Your task to perform on an android device: open app "Pandora - Music & Podcasts" (install if not already installed) and enter user name: "creator@yahoo.com" and password: "valuable" Image 0: 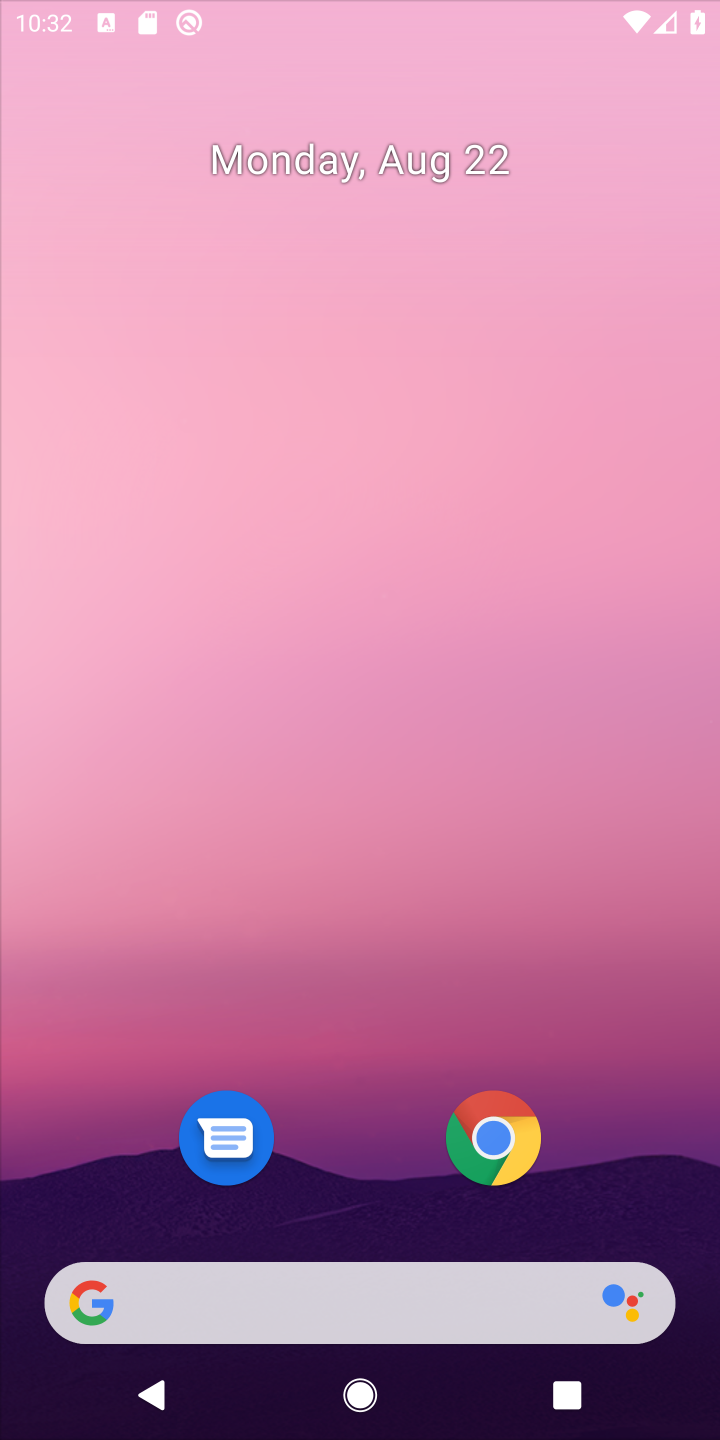
Step 0: press home button
Your task to perform on an android device: open app "Pandora - Music & Podcasts" (install if not already installed) and enter user name: "creator@yahoo.com" and password: "valuable" Image 1: 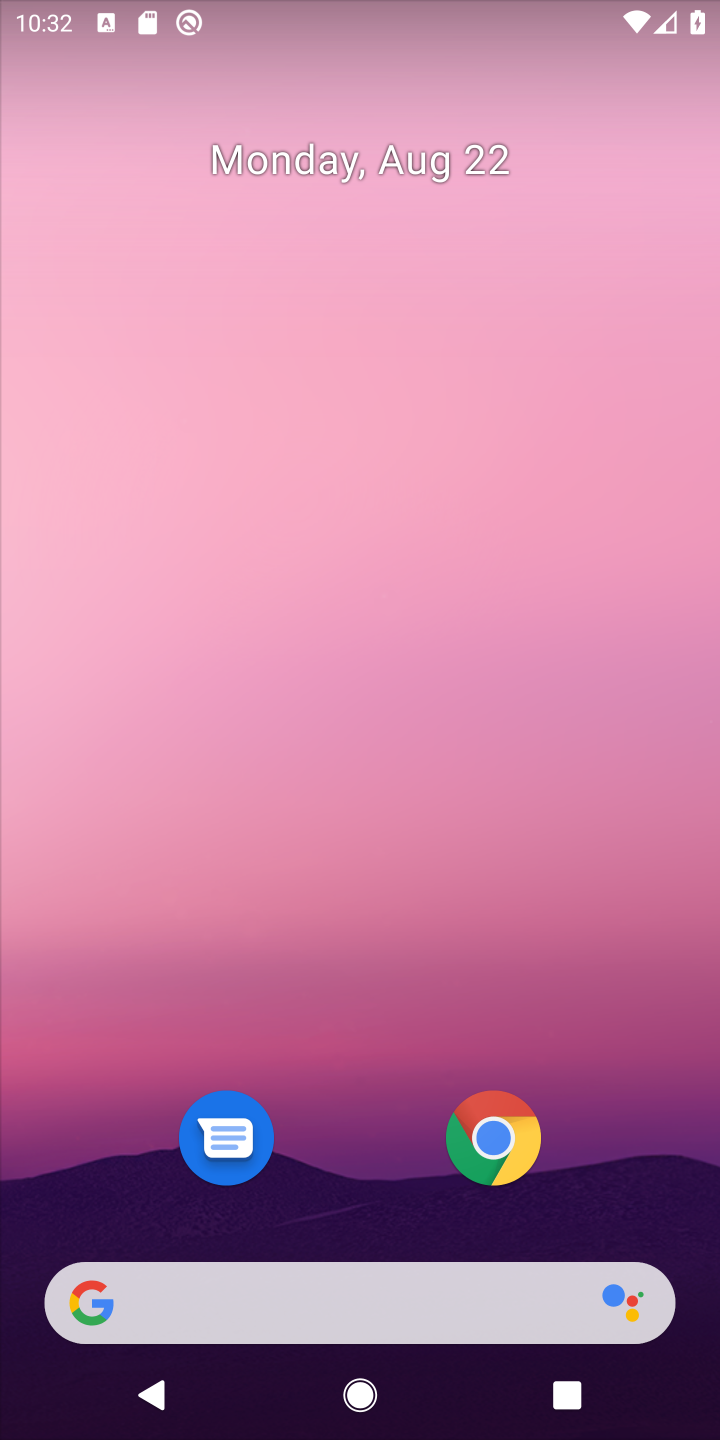
Step 1: drag from (374, 1216) to (361, 137)
Your task to perform on an android device: open app "Pandora - Music & Podcasts" (install if not already installed) and enter user name: "creator@yahoo.com" and password: "valuable" Image 2: 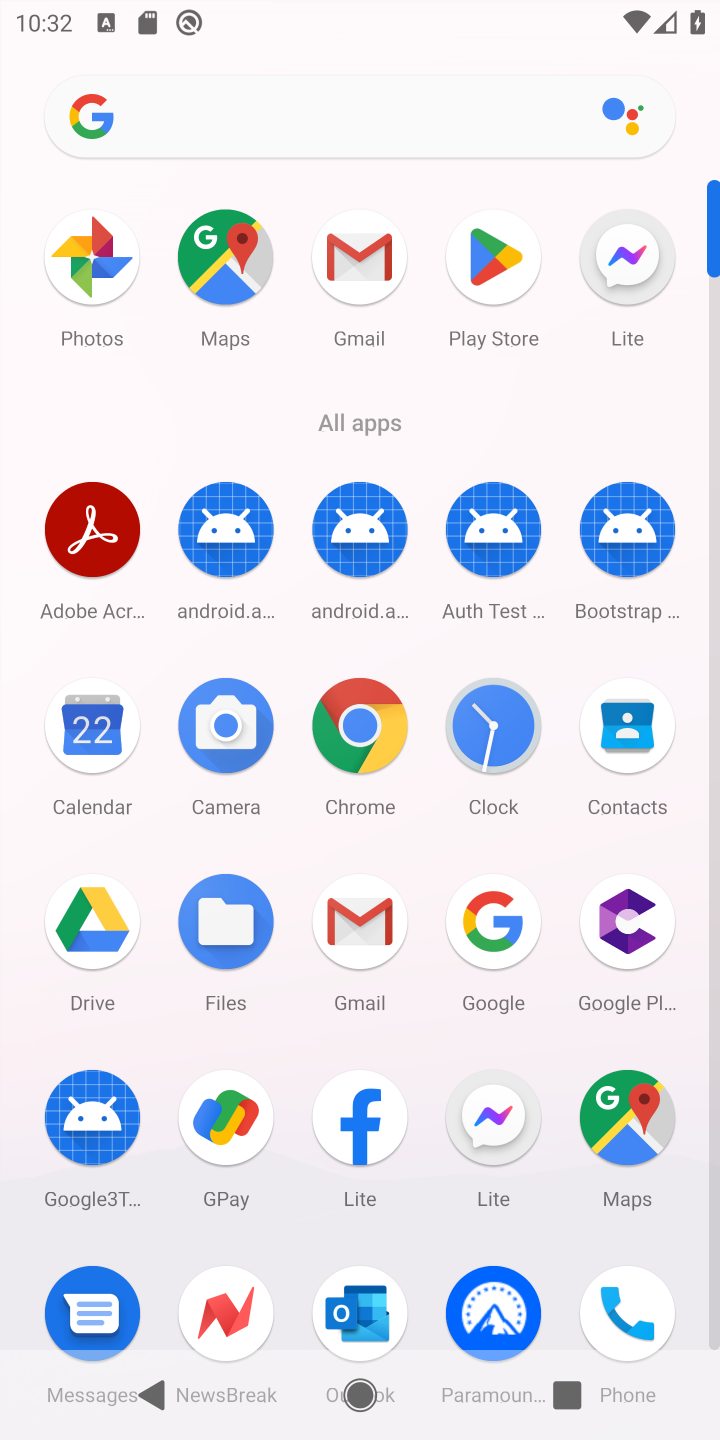
Step 2: click (494, 246)
Your task to perform on an android device: open app "Pandora - Music & Podcasts" (install if not already installed) and enter user name: "creator@yahoo.com" and password: "valuable" Image 3: 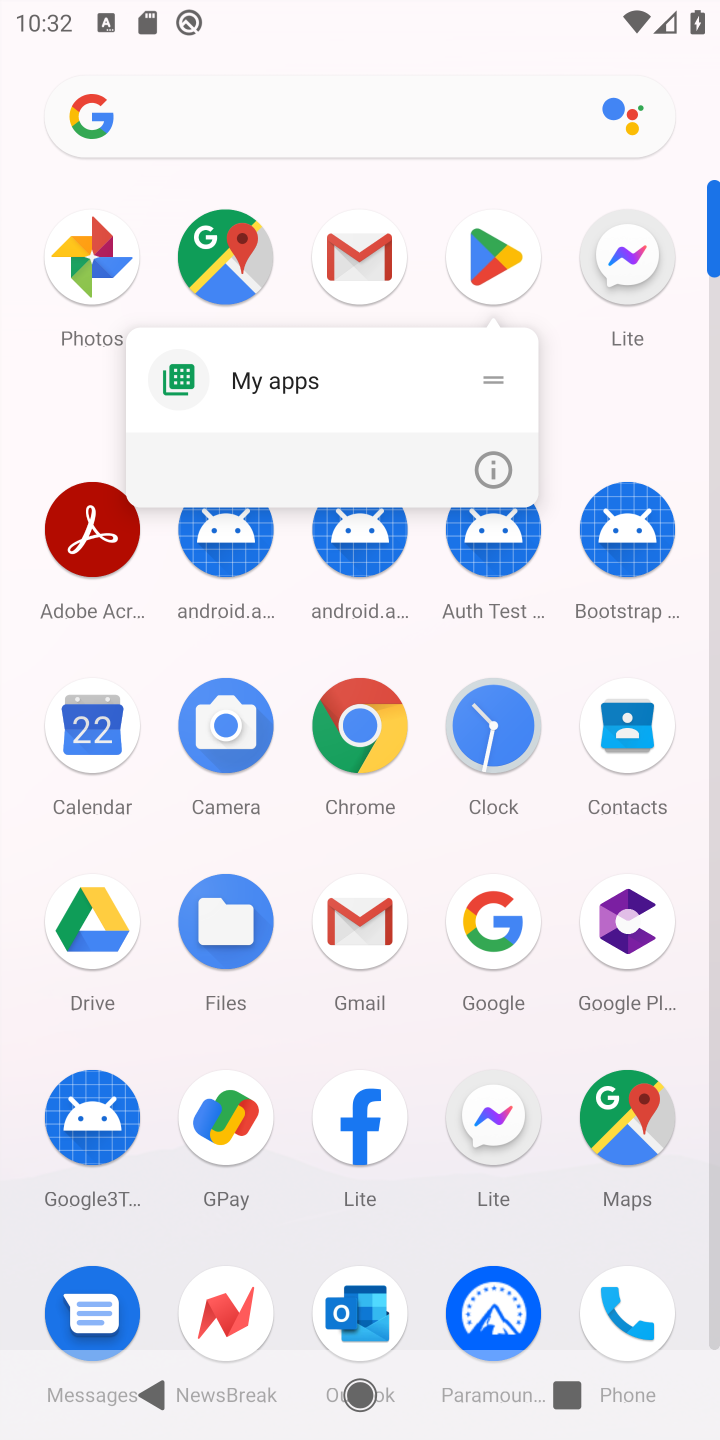
Step 3: click (488, 248)
Your task to perform on an android device: open app "Pandora - Music & Podcasts" (install if not already installed) and enter user name: "creator@yahoo.com" and password: "valuable" Image 4: 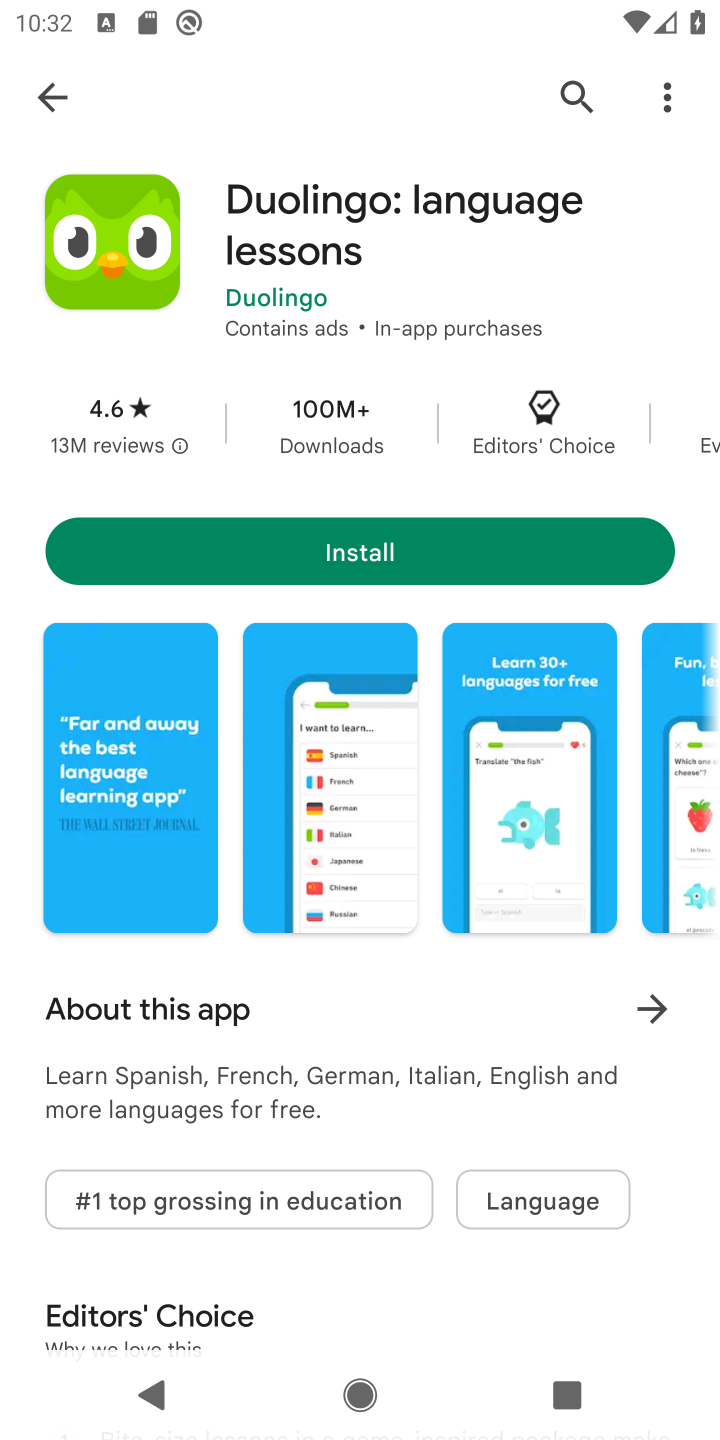
Step 4: click (566, 97)
Your task to perform on an android device: open app "Pandora - Music & Podcasts" (install if not already installed) and enter user name: "creator@yahoo.com" and password: "valuable" Image 5: 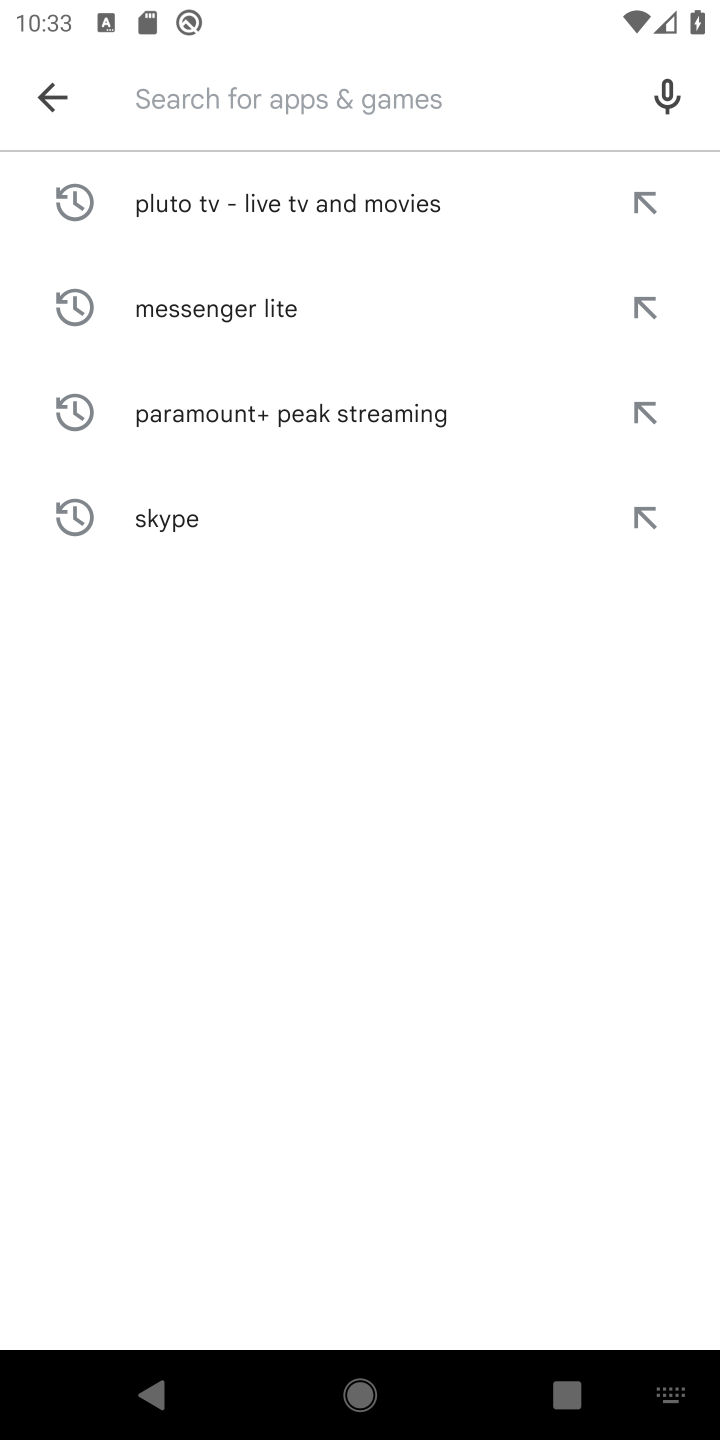
Step 5: type "Pandora - Music & Podcasts"
Your task to perform on an android device: open app "Pandora - Music & Podcasts" (install if not already installed) and enter user name: "creator@yahoo.com" and password: "valuable" Image 6: 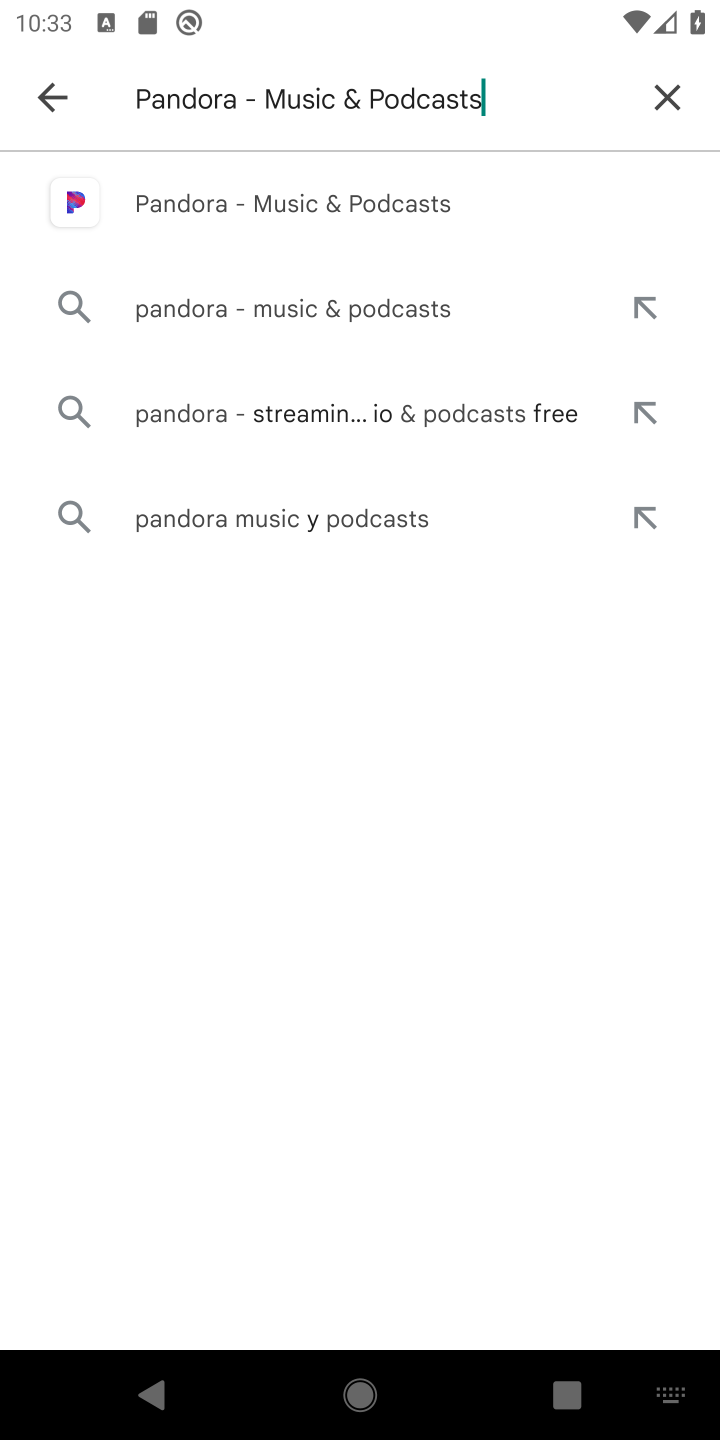
Step 6: click (277, 204)
Your task to perform on an android device: open app "Pandora - Music & Podcasts" (install if not already installed) and enter user name: "creator@yahoo.com" and password: "valuable" Image 7: 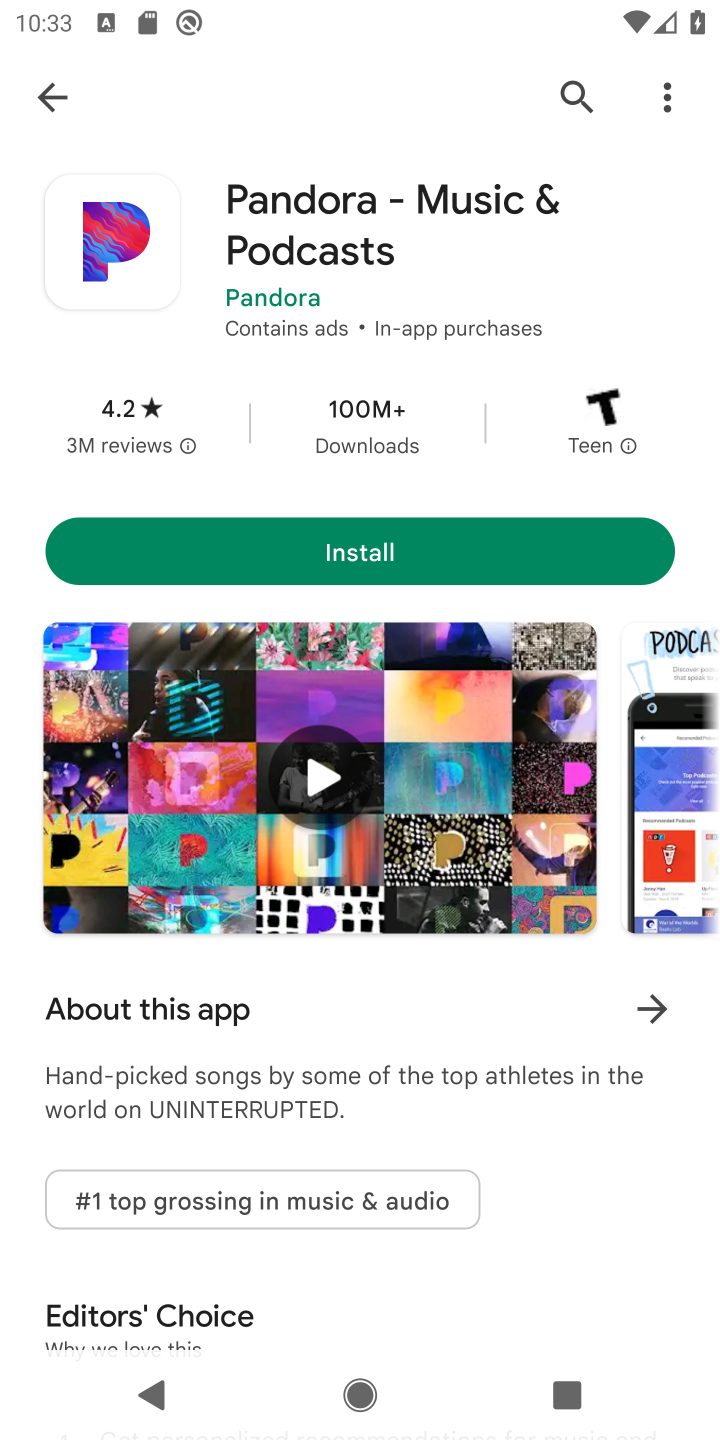
Step 7: click (364, 554)
Your task to perform on an android device: open app "Pandora - Music & Podcasts" (install if not already installed) and enter user name: "creator@yahoo.com" and password: "valuable" Image 8: 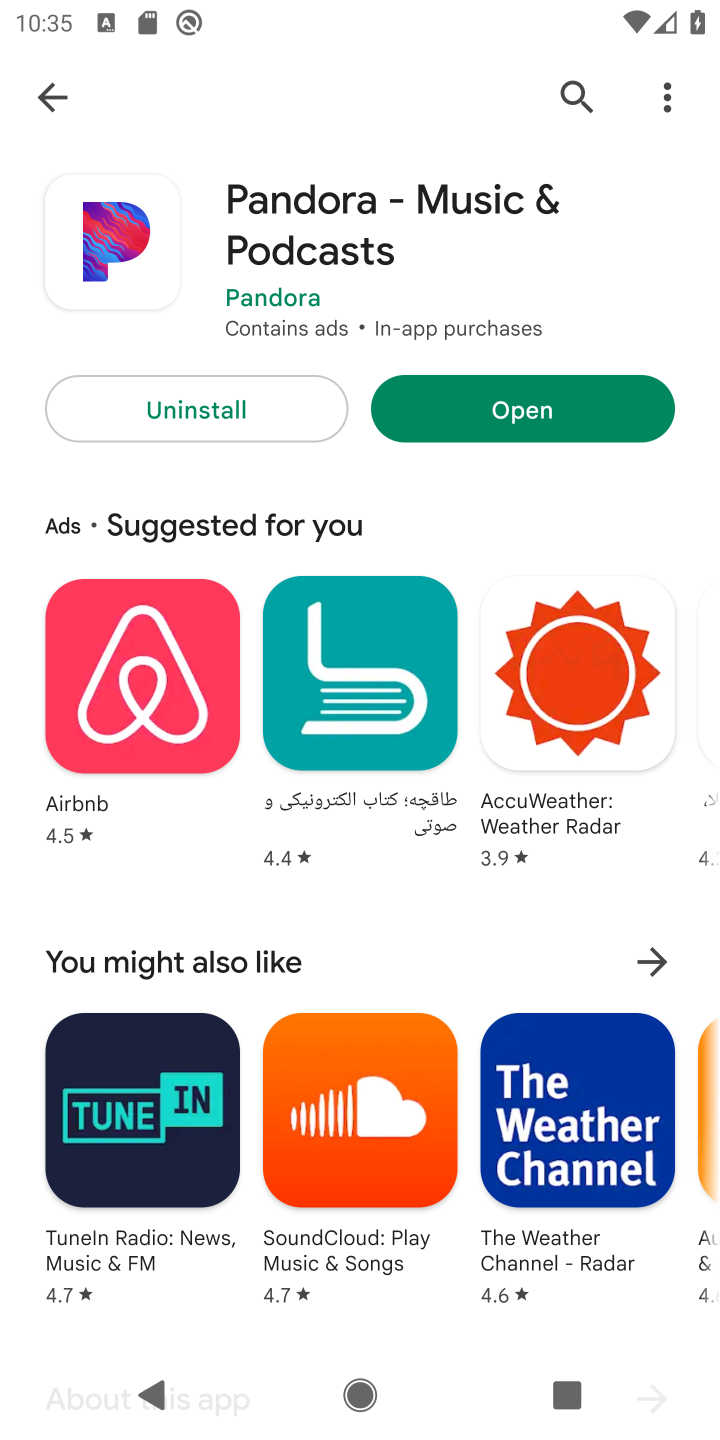
Step 8: click (548, 411)
Your task to perform on an android device: open app "Pandora - Music & Podcasts" (install if not already installed) and enter user name: "creator@yahoo.com" and password: "valuable" Image 9: 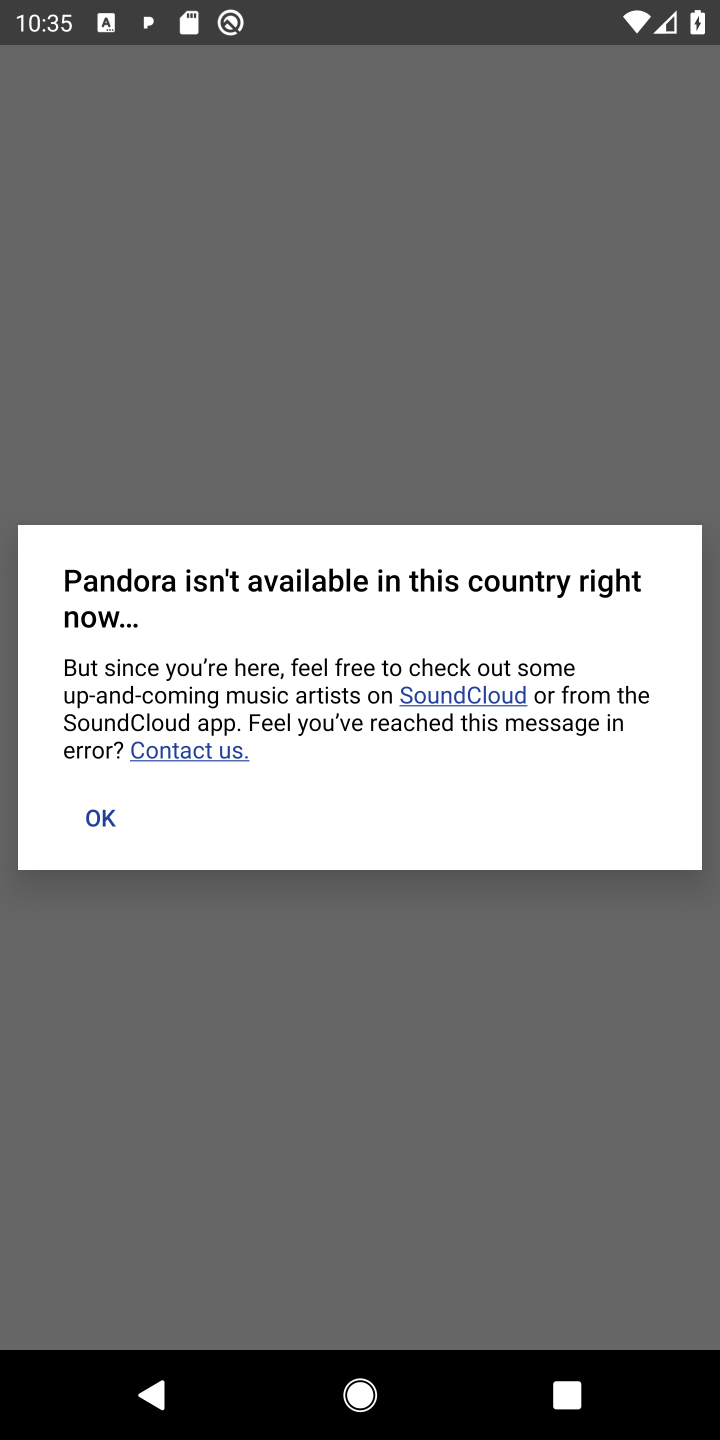
Step 9: click (104, 828)
Your task to perform on an android device: open app "Pandora - Music & Podcasts" (install if not already installed) and enter user name: "creator@yahoo.com" and password: "valuable" Image 10: 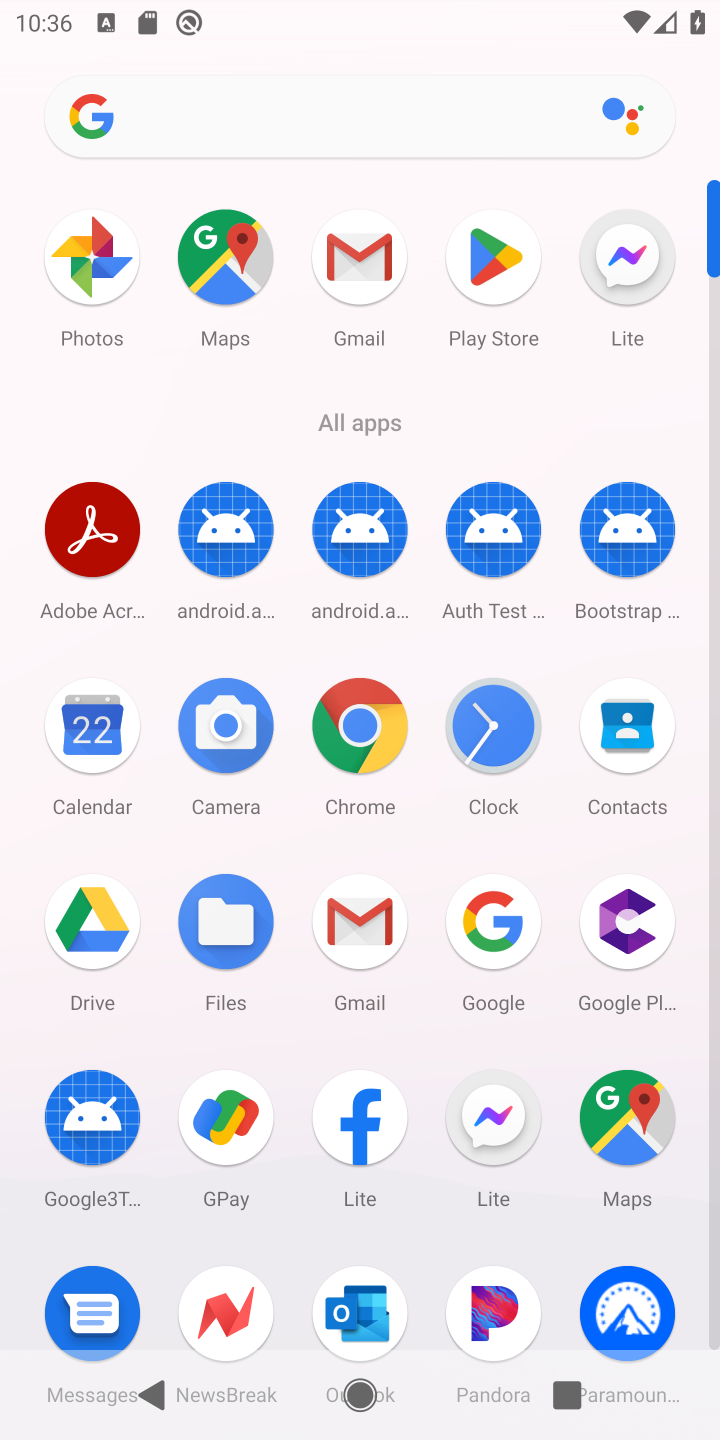
Step 10: click (488, 245)
Your task to perform on an android device: open app "Pandora - Music & Podcasts" (install if not already installed) and enter user name: "creator@yahoo.com" and password: "valuable" Image 11: 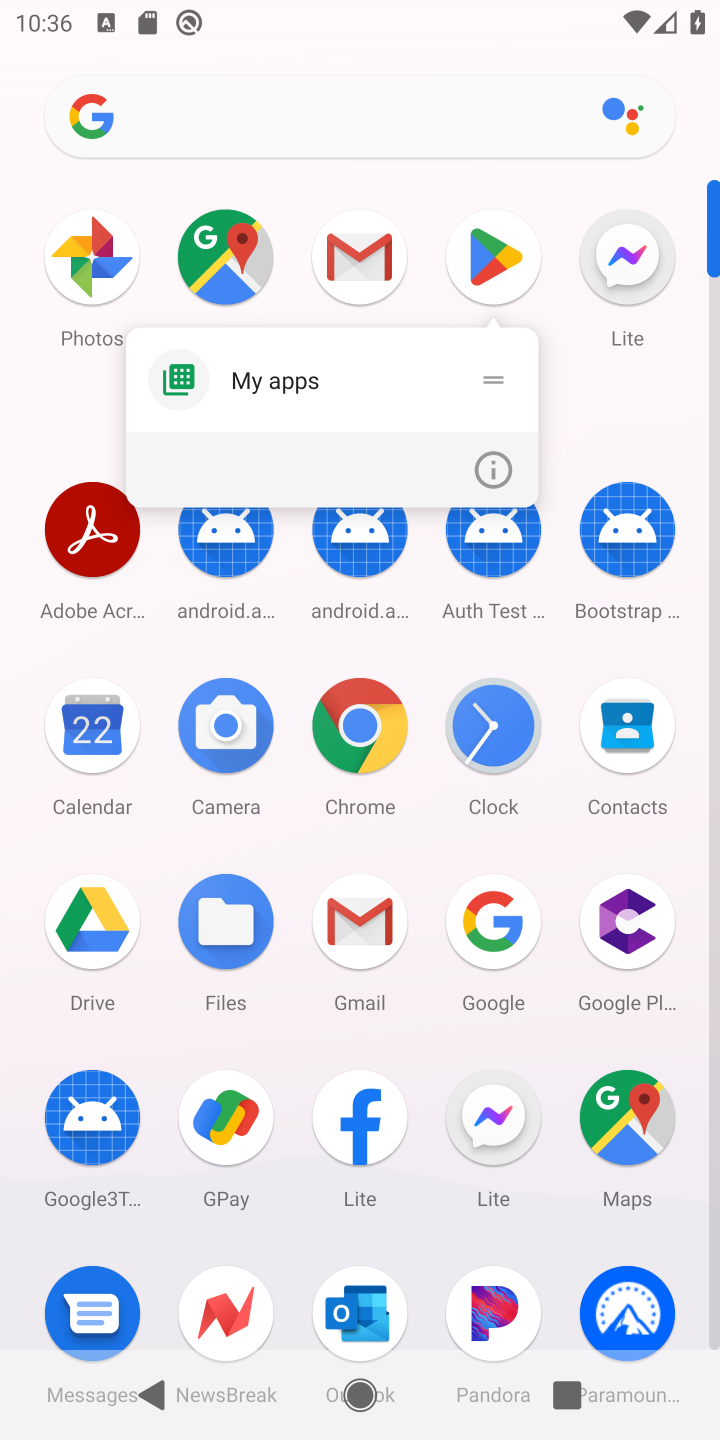
Step 11: click (484, 245)
Your task to perform on an android device: open app "Pandora - Music & Podcasts" (install if not already installed) and enter user name: "creator@yahoo.com" and password: "valuable" Image 12: 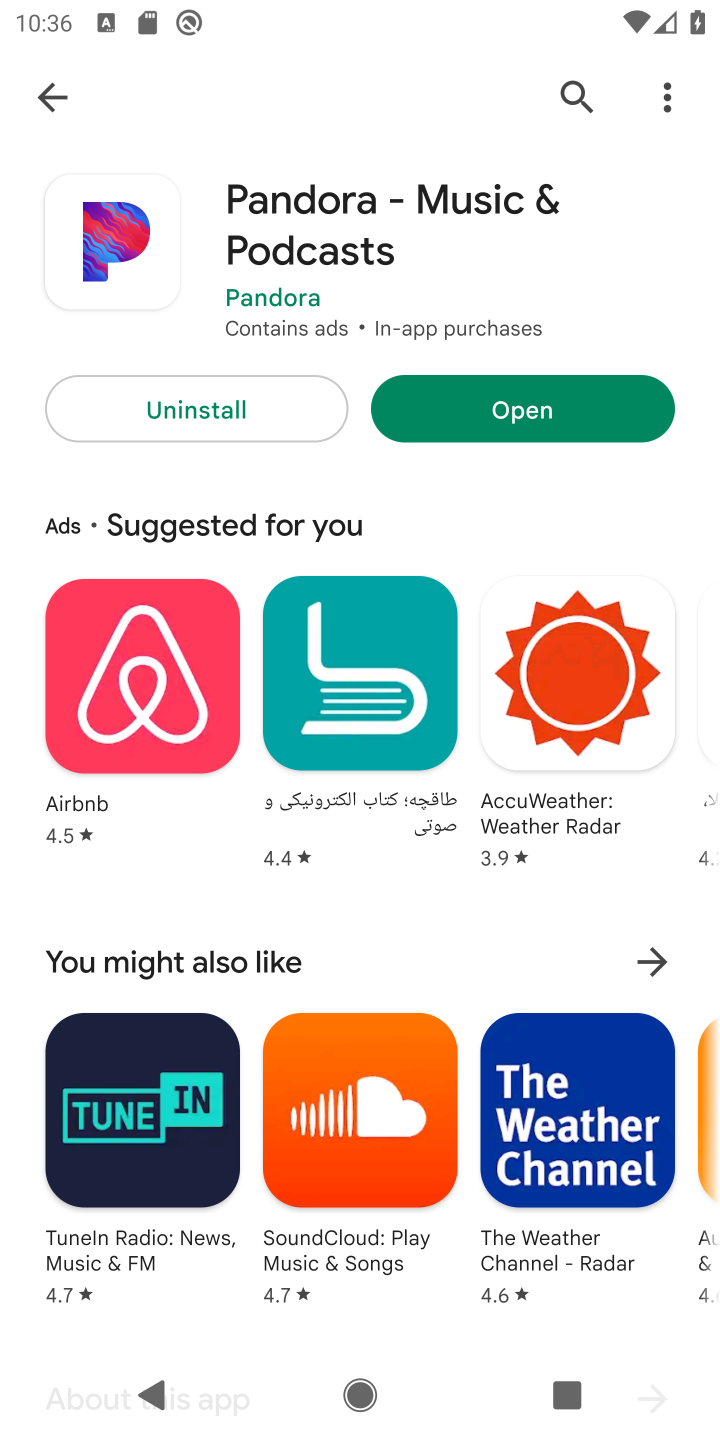
Step 12: click (52, 94)
Your task to perform on an android device: open app "Pandora - Music & Podcasts" (install if not already installed) and enter user name: "creator@yahoo.com" and password: "valuable" Image 13: 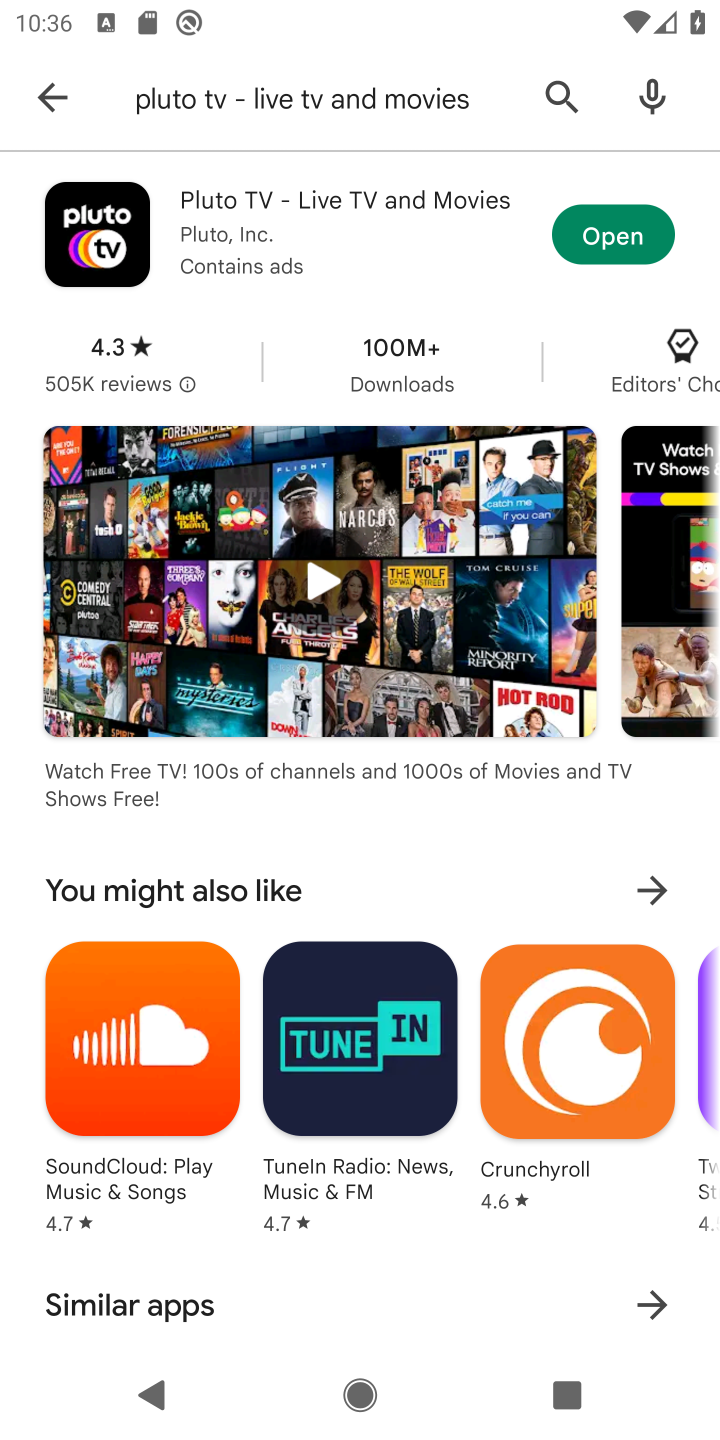
Step 13: click (561, 89)
Your task to perform on an android device: open app "Pandora - Music & Podcasts" (install if not already installed) and enter user name: "creator@yahoo.com" and password: "valuable" Image 14: 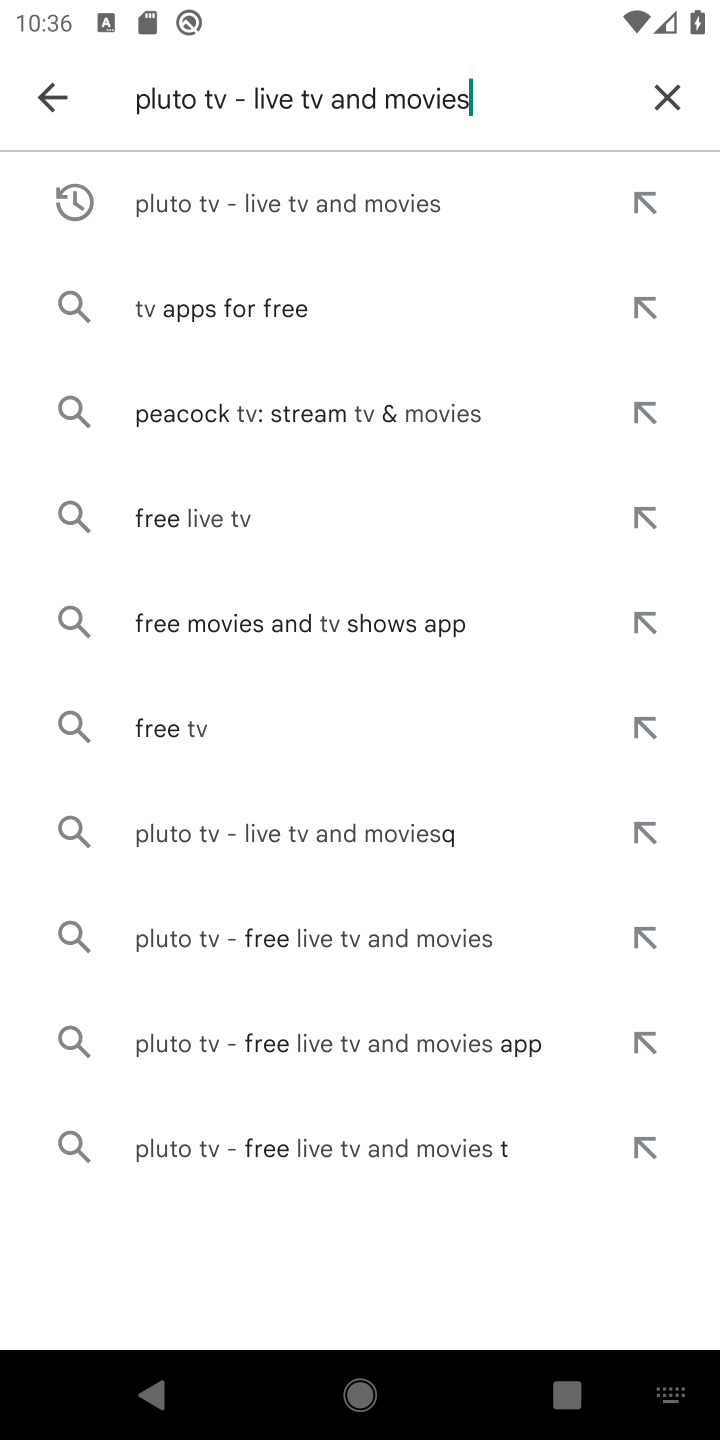
Step 14: click (674, 97)
Your task to perform on an android device: open app "Pandora - Music & Podcasts" (install if not already installed) and enter user name: "creator@yahoo.com" and password: "valuable" Image 15: 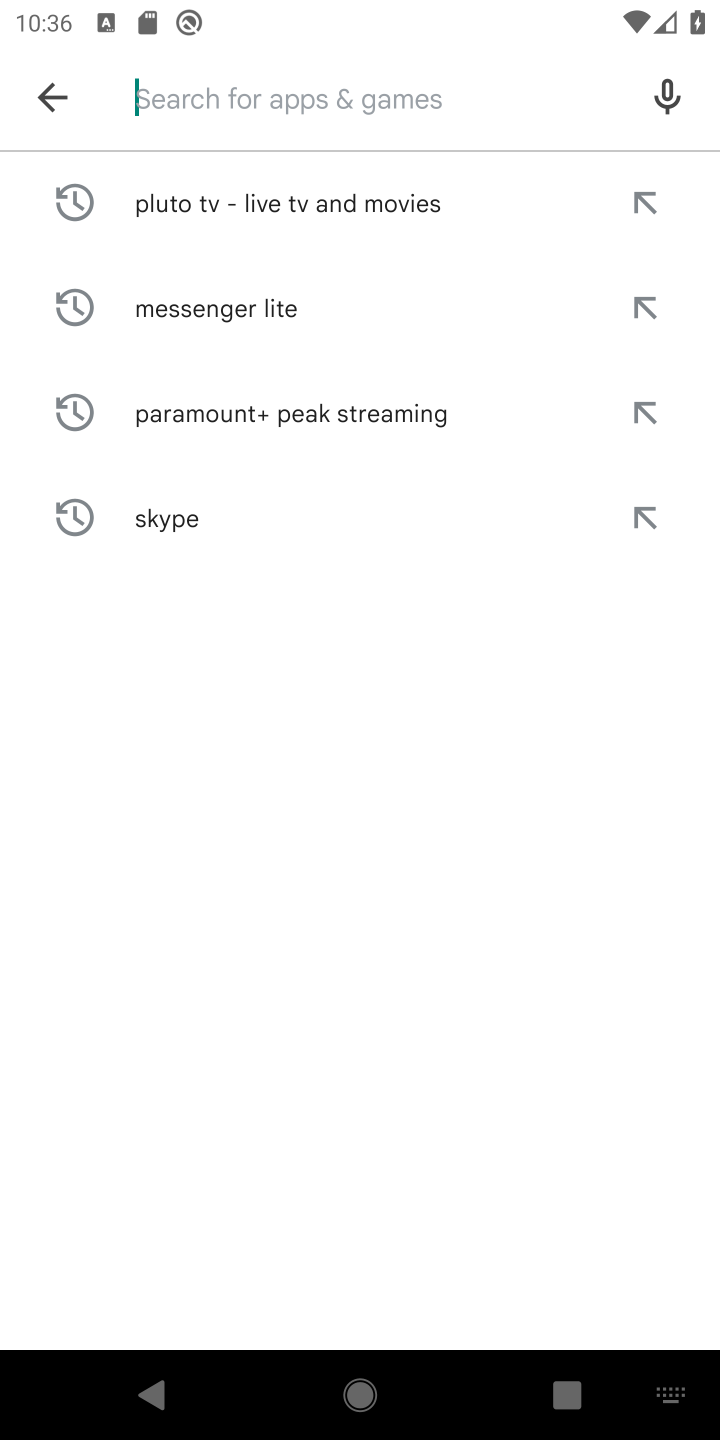
Step 15: type "Pandora - Music & Podcasts"
Your task to perform on an android device: open app "Pandora - Music & Podcasts" (install if not already installed) and enter user name: "creator@yahoo.com" and password: "valuable" Image 16: 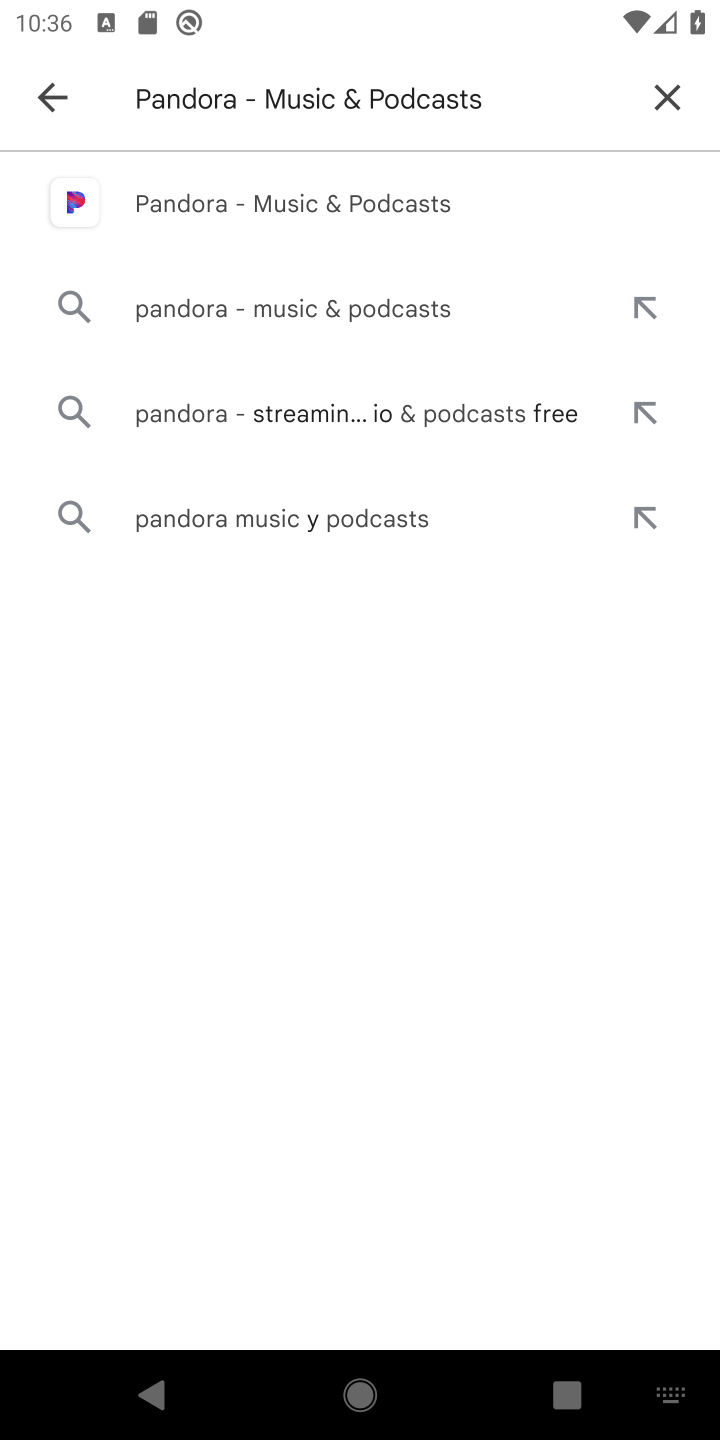
Step 16: click (370, 193)
Your task to perform on an android device: open app "Pandora - Music & Podcasts" (install if not already installed) and enter user name: "creator@yahoo.com" and password: "valuable" Image 17: 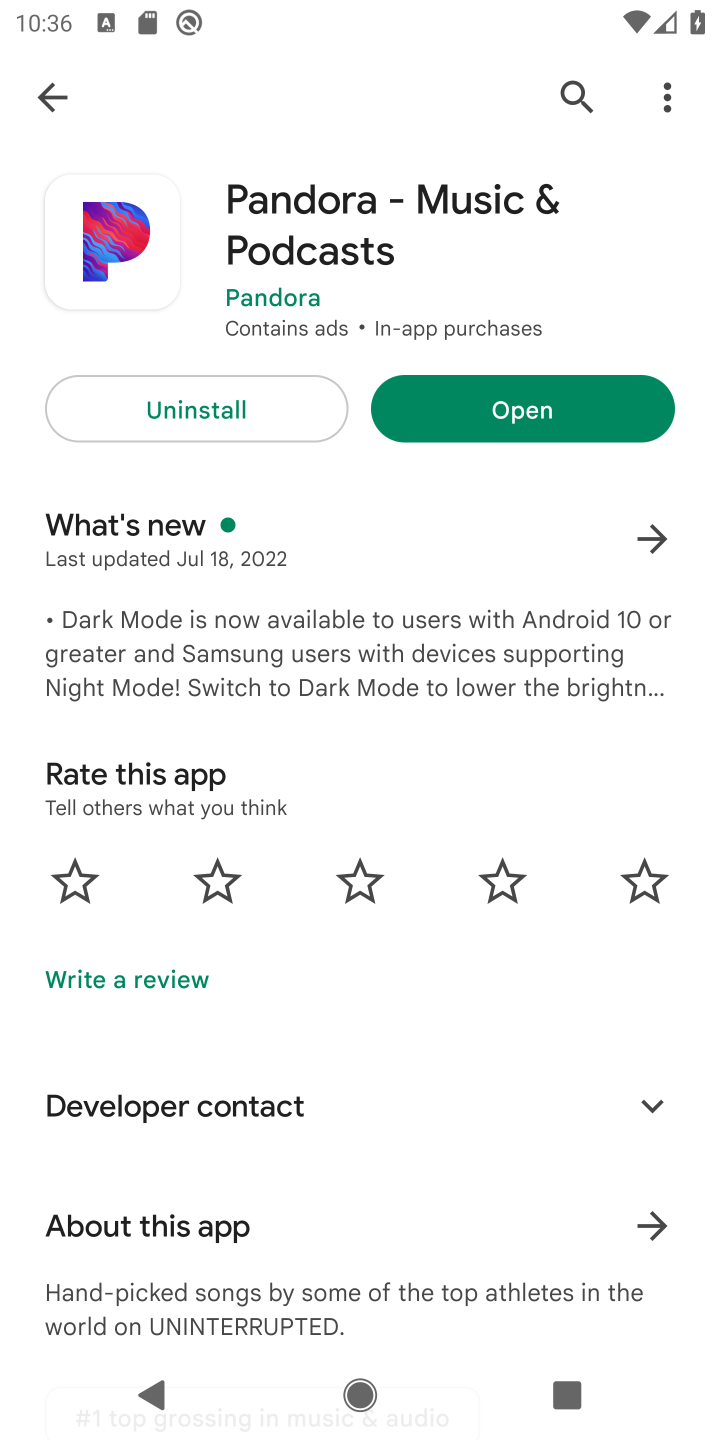
Step 17: click (518, 399)
Your task to perform on an android device: open app "Pandora - Music & Podcasts" (install if not already installed) and enter user name: "creator@yahoo.com" and password: "valuable" Image 18: 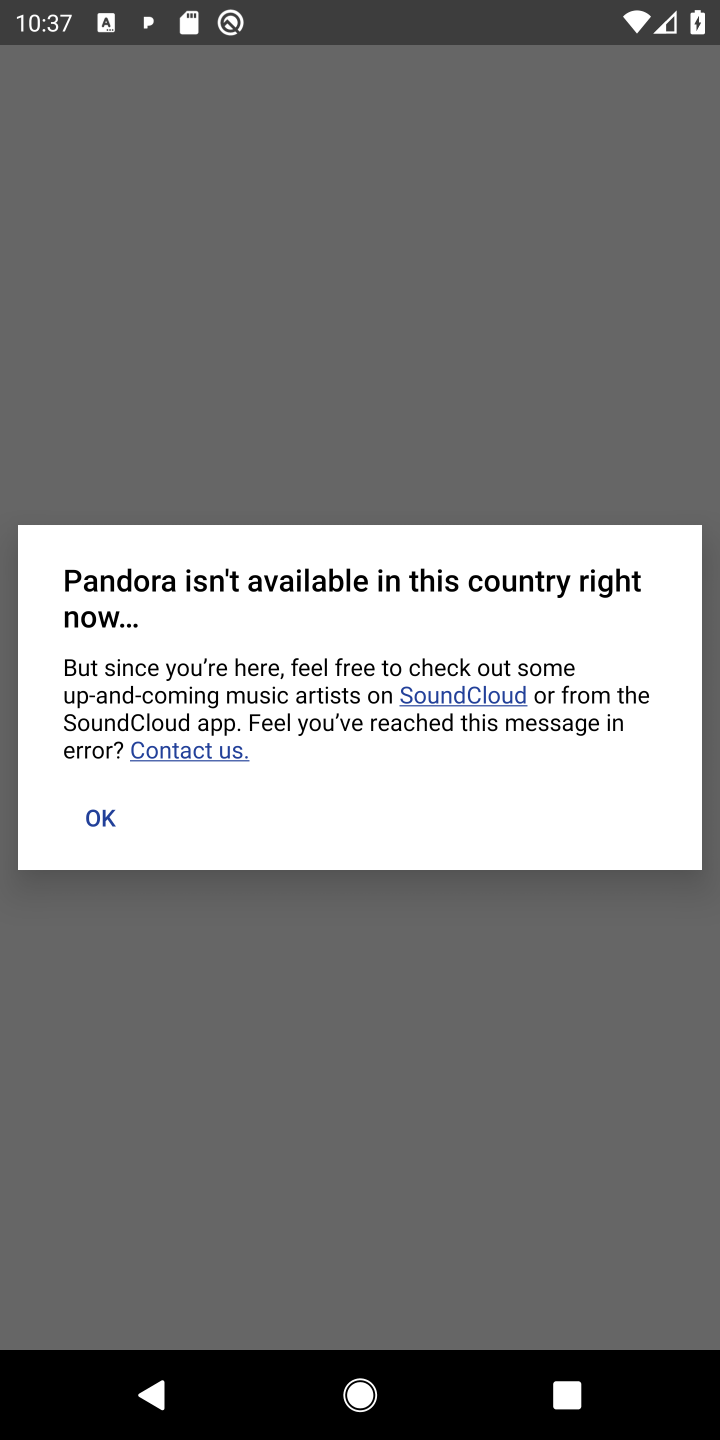
Step 18: click (102, 810)
Your task to perform on an android device: open app "Pandora - Music & Podcasts" (install if not already installed) and enter user name: "creator@yahoo.com" and password: "valuable" Image 19: 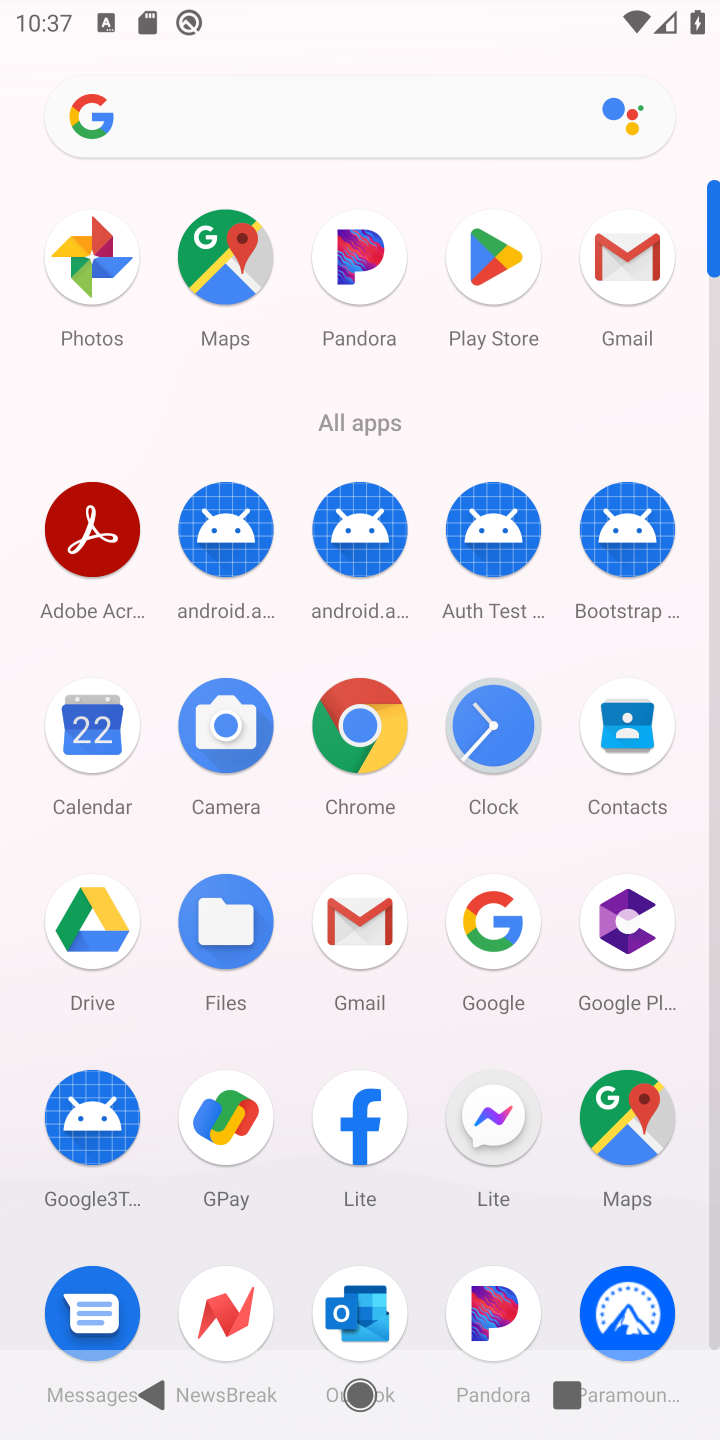
Step 19: task complete